Your task to perform on an android device: Is it going to rain tomorrow? Image 0: 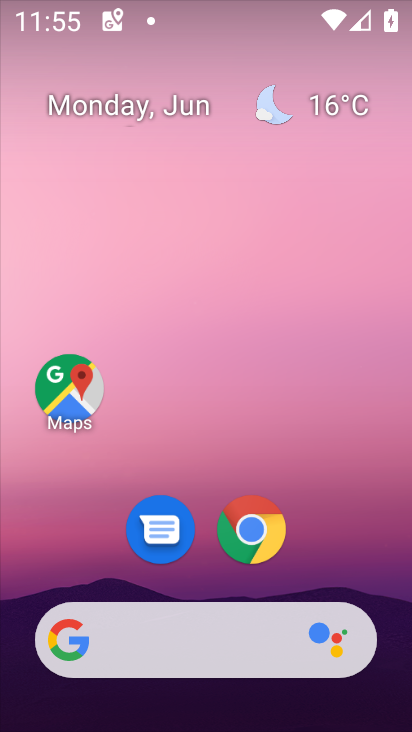
Step 0: click (337, 110)
Your task to perform on an android device: Is it going to rain tomorrow? Image 1: 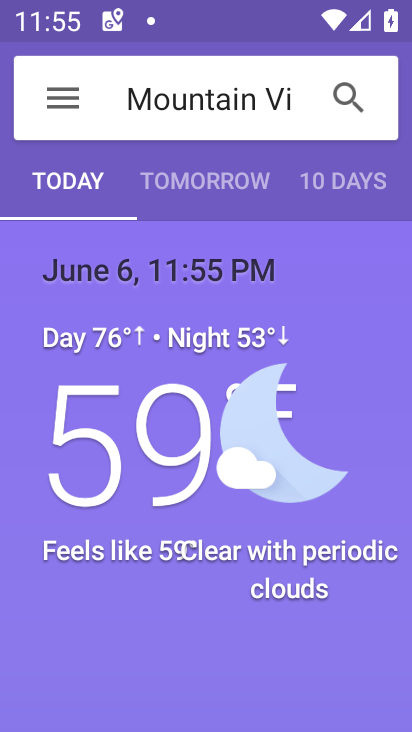
Step 1: click (222, 195)
Your task to perform on an android device: Is it going to rain tomorrow? Image 2: 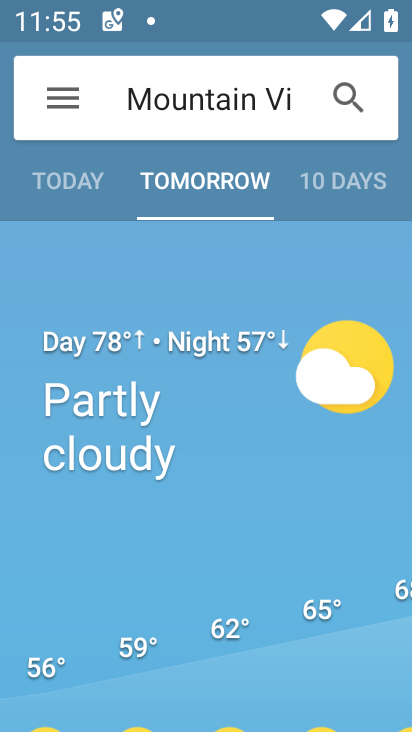
Step 2: task complete